Your task to perform on an android device: turn on translation in the chrome app Image 0: 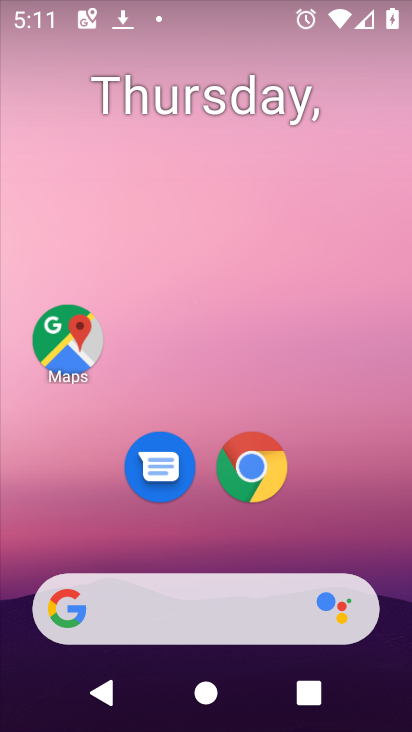
Step 0: drag from (388, 529) to (305, 94)
Your task to perform on an android device: turn on translation in the chrome app Image 1: 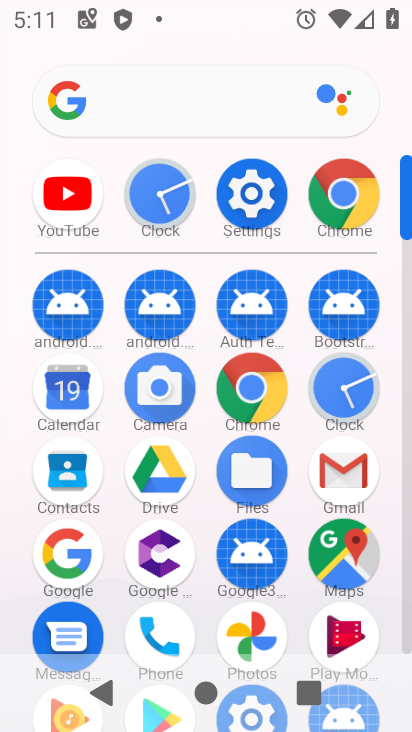
Step 1: click (346, 175)
Your task to perform on an android device: turn on translation in the chrome app Image 2: 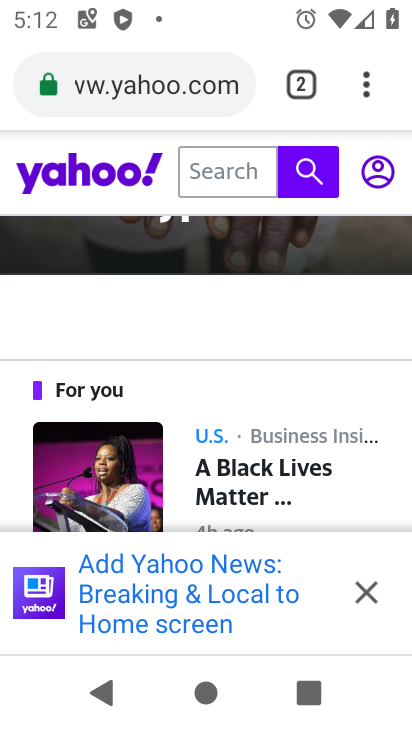
Step 2: click (372, 82)
Your task to perform on an android device: turn on translation in the chrome app Image 3: 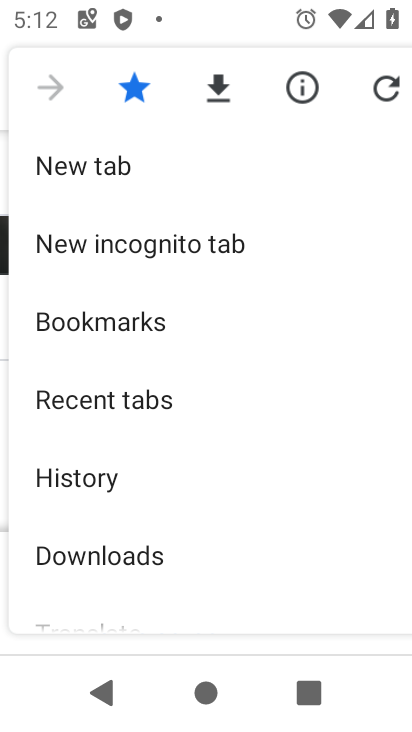
Step 3: drag from (272, 562) to (213, 154)
Your task to perform on an android device: turn on translation in the chrome app Image 4: 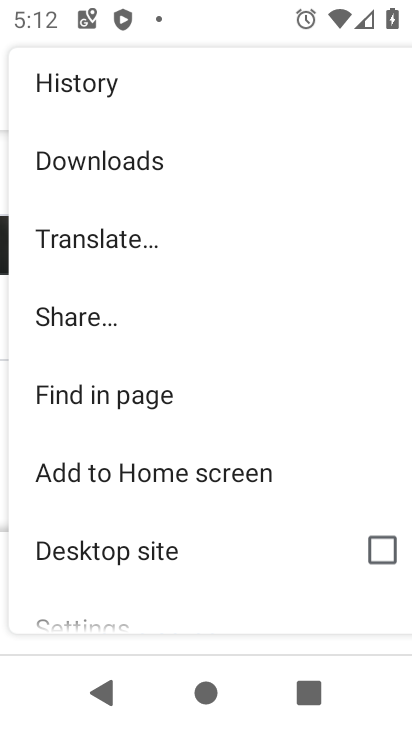
Step 4: click (187, 614)
Your task to perform on an android device: turn on translation in the chrome app Image 5: 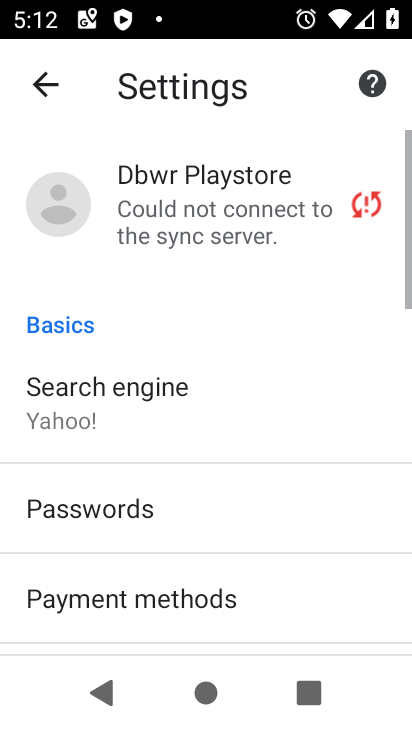
Step 5: drag from (276, 607) to (216, 176)
Your task to perform on an android device: turn on translation in the chrome app Image 6: 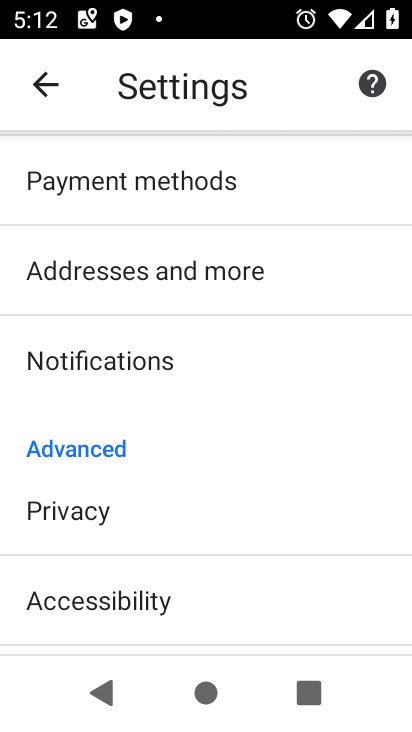
Step 6: drag from (291, 653) to (232, 204)
Your task to perform on an android device: turn on translation in the chrome app Image 7: 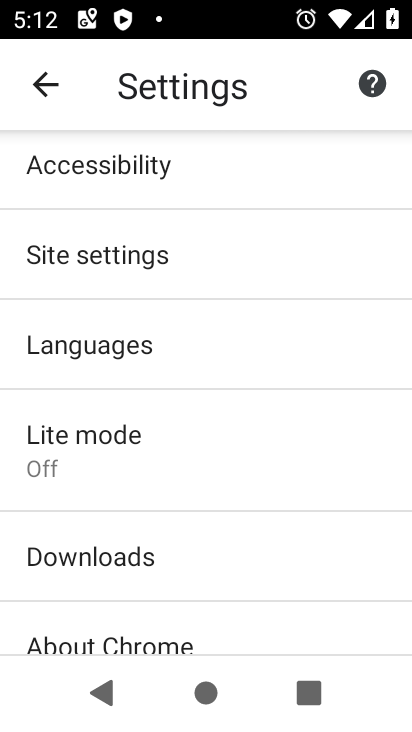
Step 7: click (252, 324)
Your task to perform on an android device: turn on translation in the chrome app Image 8: 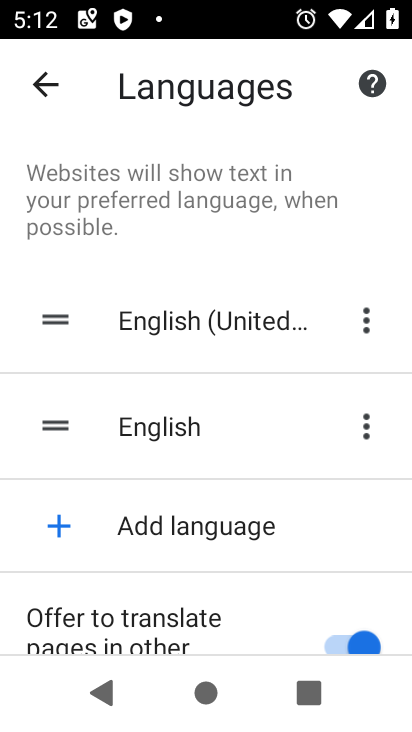
Step 8: task complete